Your task to perform on an android device: turn off data saver in the chrome app Image 0: 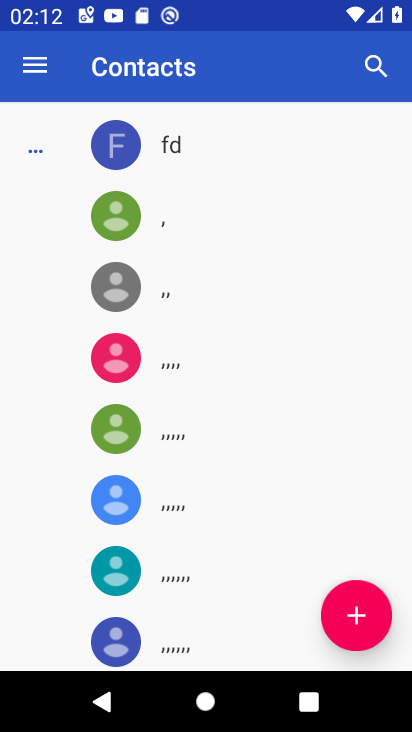
Step 0: press home button
Your task to perform on an android device: turn off data saver in the chrome app Image 1: 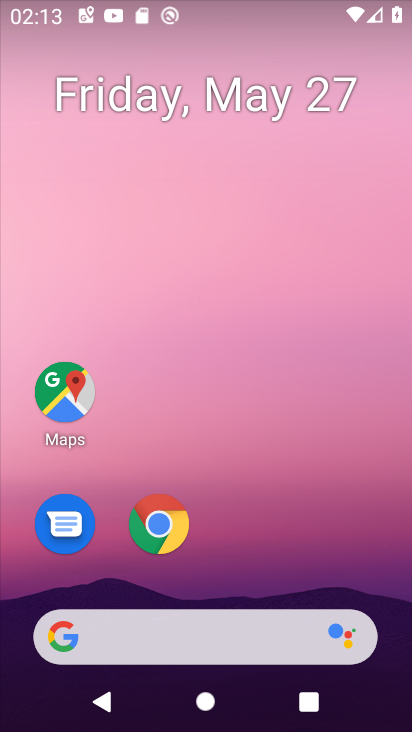
Step 1: click (168, 512)
Your task to perform on an android device: turn off data saver in the chrome app Image 2: 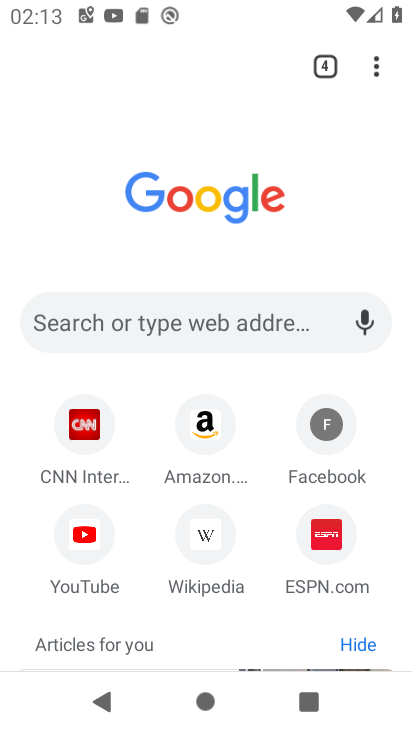
Step 2: click (374, 61)
Your task to perform on an android device: turn off data saver in the chrome app Image 3: 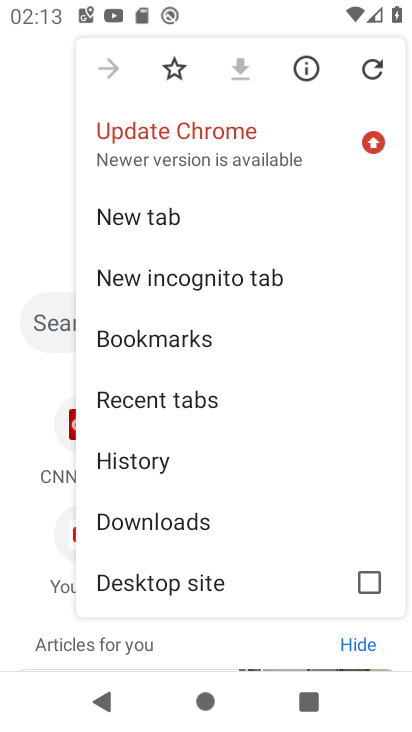
Step 3: drag from (230, 474) to (267, 201)
Your task to perform on an android device: turn off data saver in the chrome app Image 4: 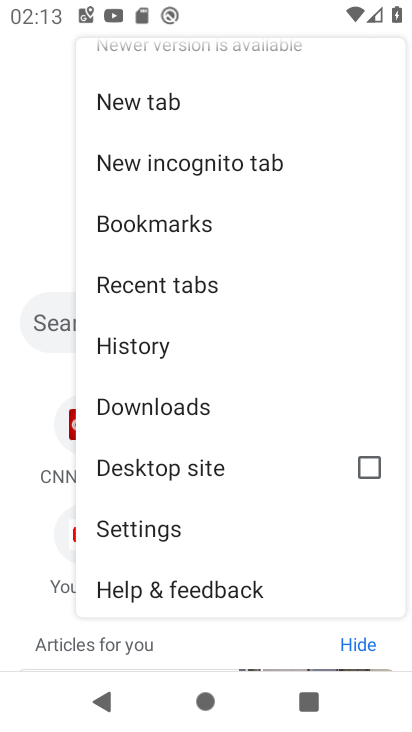
Step 4: click (165, 526)
Your task to perform on an android device: turn off data saver in the chrome app Image 5: 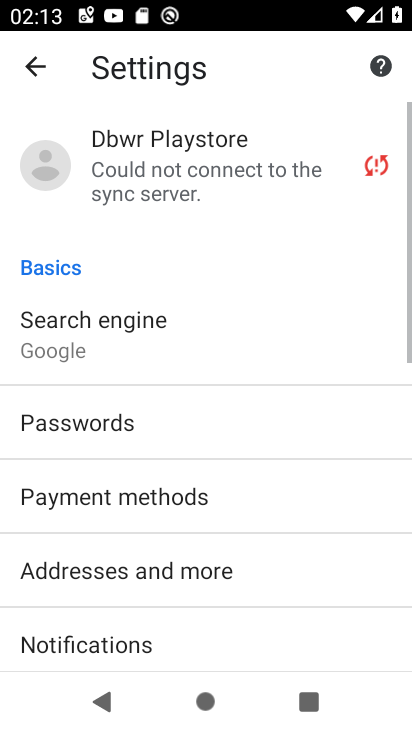
Step 5: drag from (249, 445) to (204, 101)
Your task to perform on an android device: turn off data saver in the chrome app Image 6: 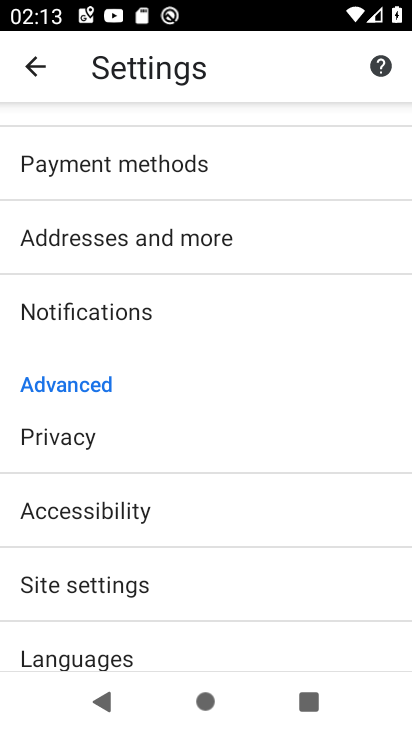
Step 6: drag from (219, 549) to (315, 220)
Your task to perform on an android device: turn off data saver in the chrome app Image 7: 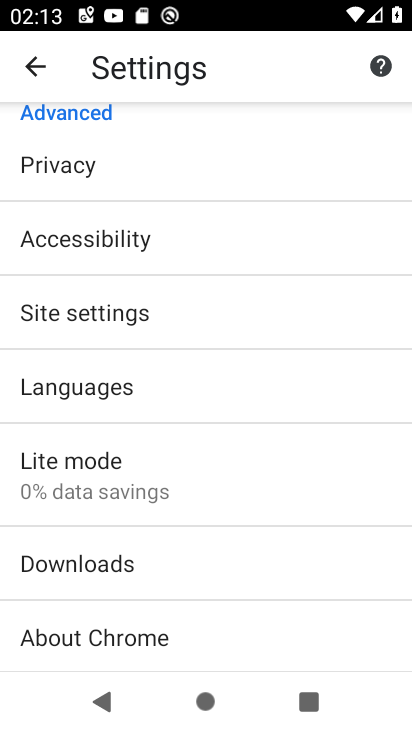
Step 7: click (200, 482)
Your task to perform on an android device: turn off data saver in the chrome app Image 8: 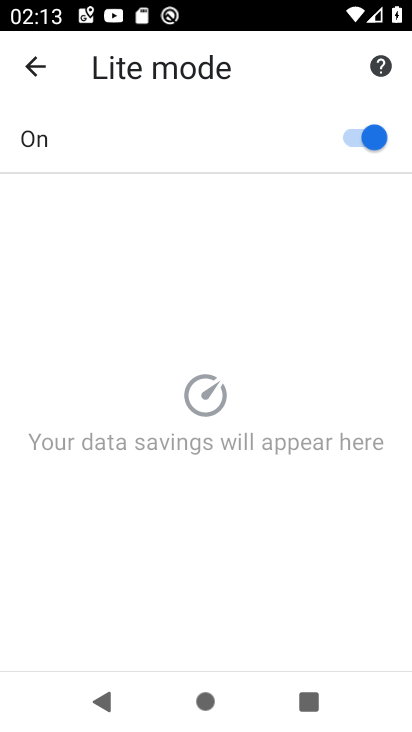
Step 8: click (360, 135)
Your task to perform on an android device: turn off data saver in the chrome app Image 9: 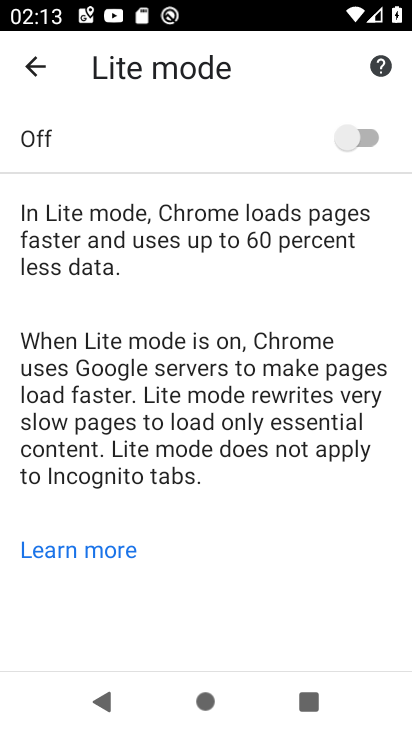
Step 9: task complete